Your task to perform on an android device: What's the weather going to be this weekend? Image 0: 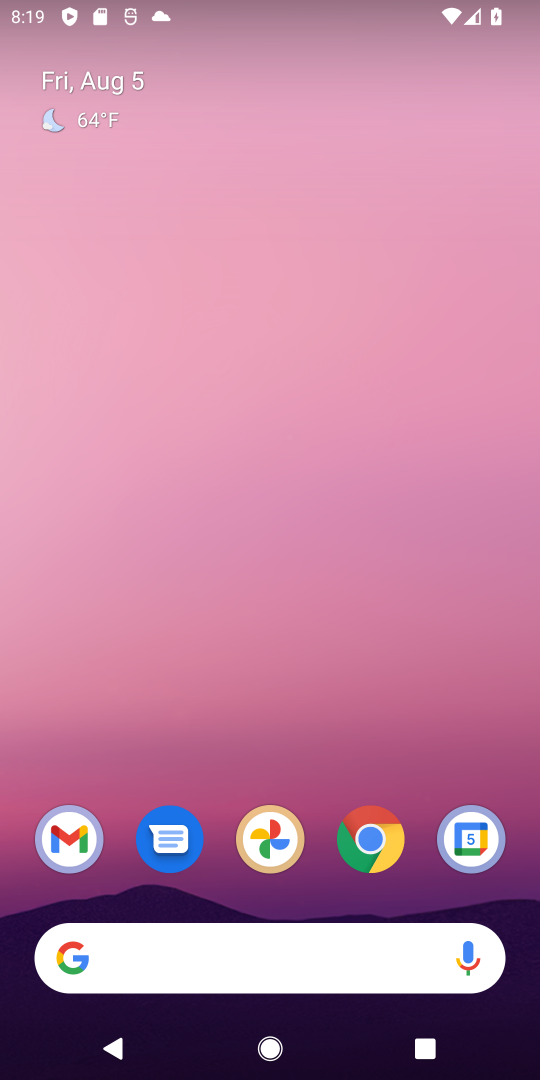
Step 0: drag from (340, 194) to (337, 112)
Your task to perform on an android device: What's the weather going to be this weekend? Image 1: 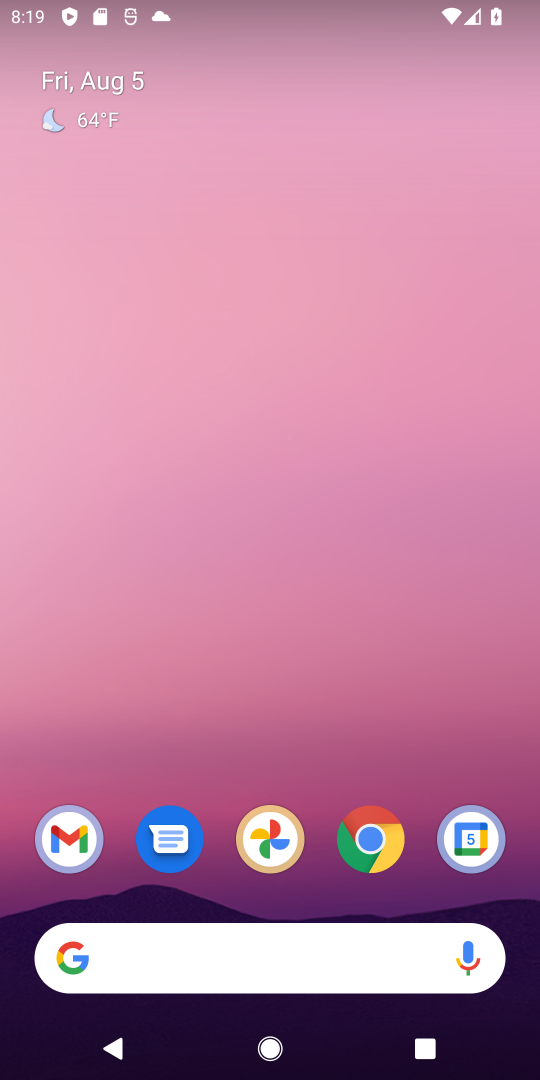
Step 1: drag from (313, 909) to (316, 179)
Your task to perform on an android device: What's the weather going to be this weekend? Image 2: 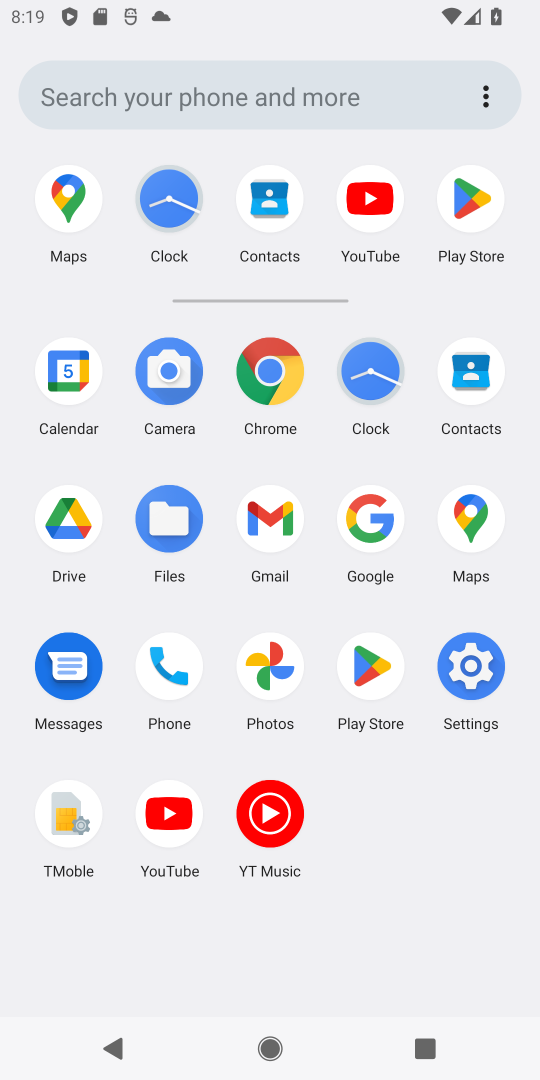
Step 2: click (370, 506)
Your task to perform on an android device: What's the weather going to be this weekend? Image 3: 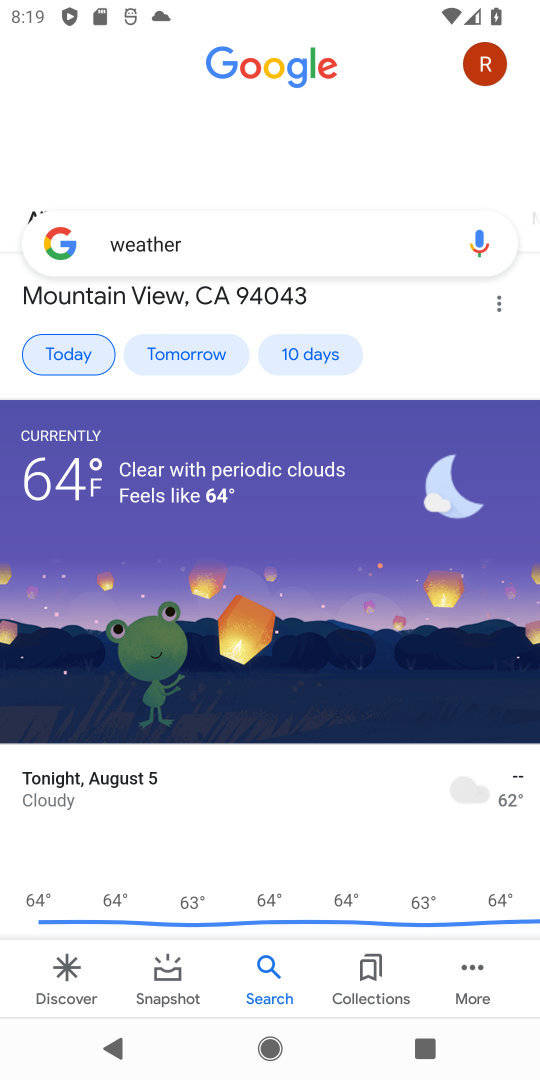
Step 3: click (301, 356)
Your task to perform on an android device: What's the weather going to be this weekend? Image 4: 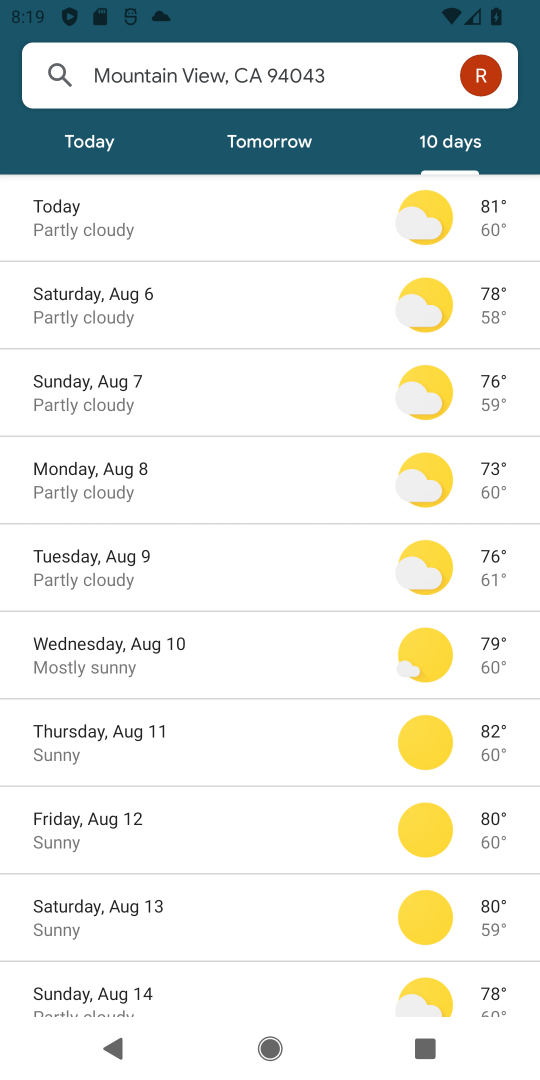
Step 4: click (114, 321)
Your task to perform on an android device: What's the weather going to be this weekend? Image 5: 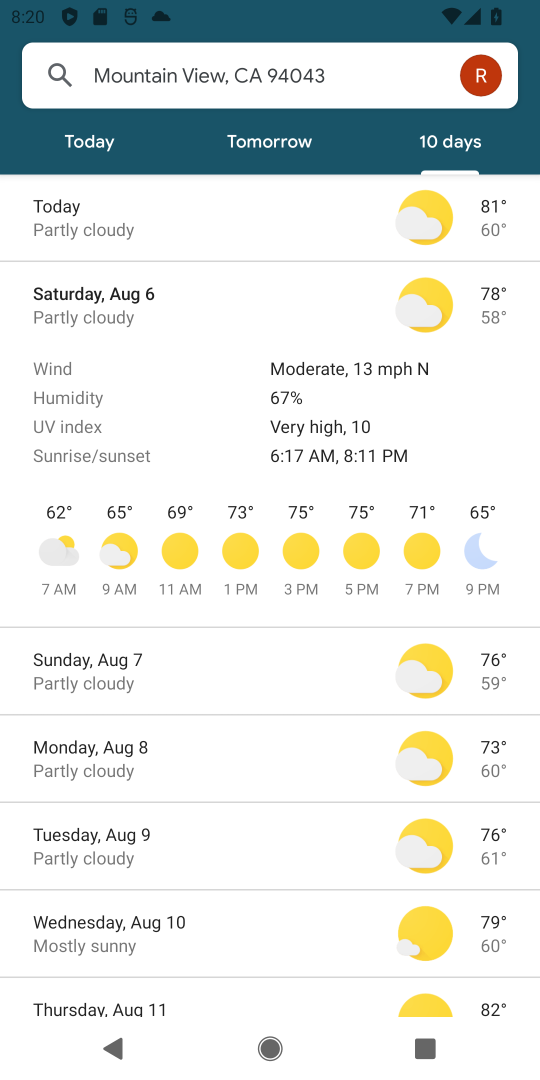
Step 5: task complete